Your task to perform on an android device: Search for the best rated running shoes on Nike.com Image 0: 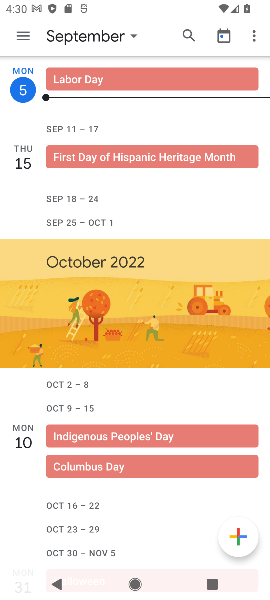
Step 0: press home button
Your task to perform on an android device: Search for the best rated running shoes on Nike.com Image 1: 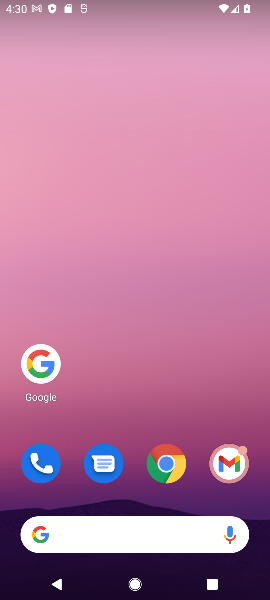
Step 1: click (36, 353)
Your task to perform on an android device: Search for the best rated running shoes on Nike.com Image 2: 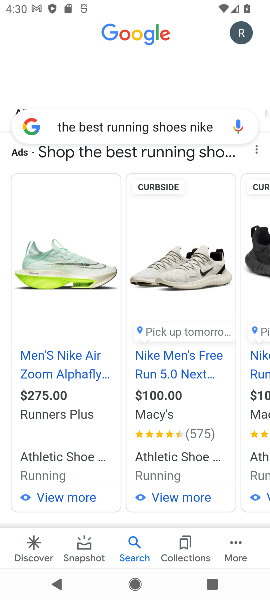
Step 2: click (153, 127)
Your task to perform on an android device: Search for the best rated running shoes on Nike.com Image 3: 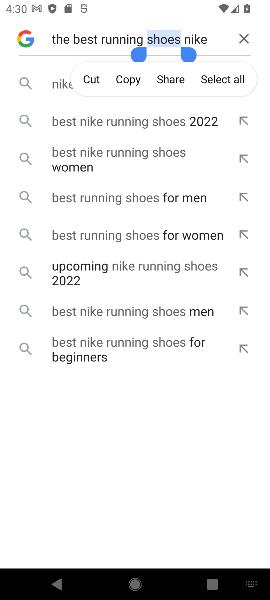
Step 3: click (243, 37)
Your task to perform on an android device: Search for the best rated running shoes on Nike.com Image 4: 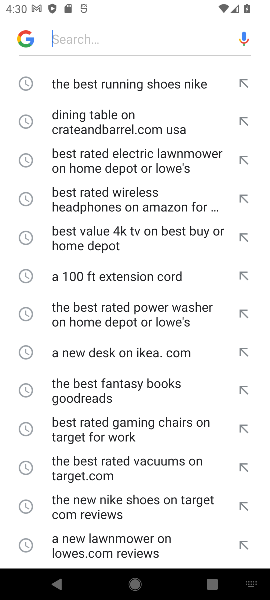
Step 4: click (106, 41)
Your task to perform on an android device: Search for the best rated running shoes on Nike.com Image 5: 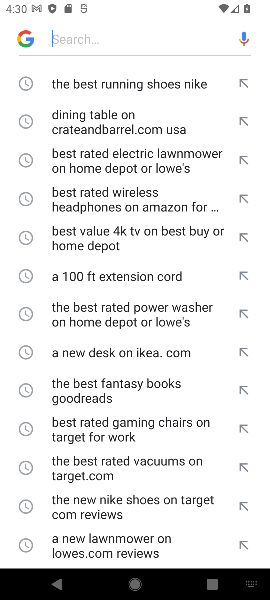
Step 5: type "the best rated running shoes on Nike.com "
Your task to perform on an android device: Search for the best rated running shoes on Nike.com Image 6: 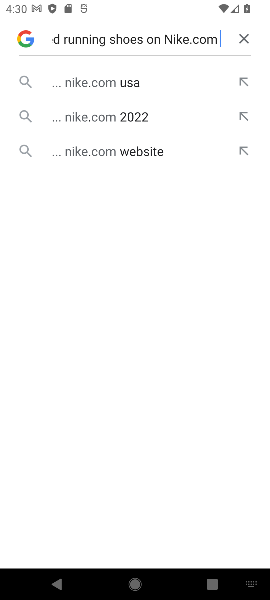
Step 6: click (111, 78)
Your task to perform on an android device: Search for the best rated running shoes on Nike.com Image 7: 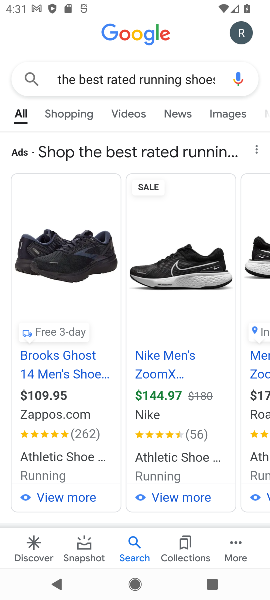
Step 7: task complete